Your task to perform on an android device: find snoozed emails in the gmail app Image 0: 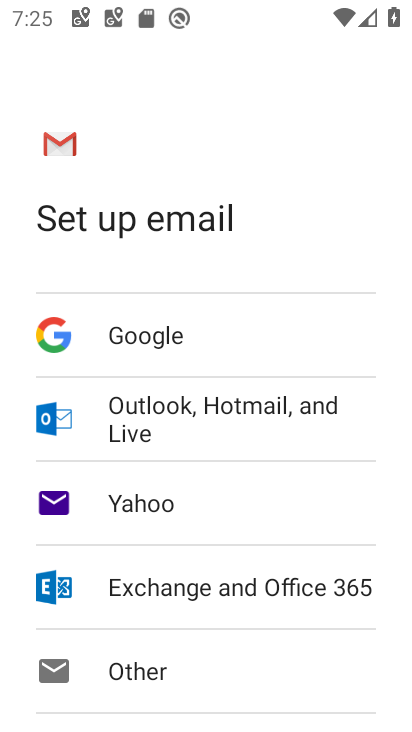
Step 0: press home button
Your task to perform on an android device: find snoozed emails in the gmail app Image 1: 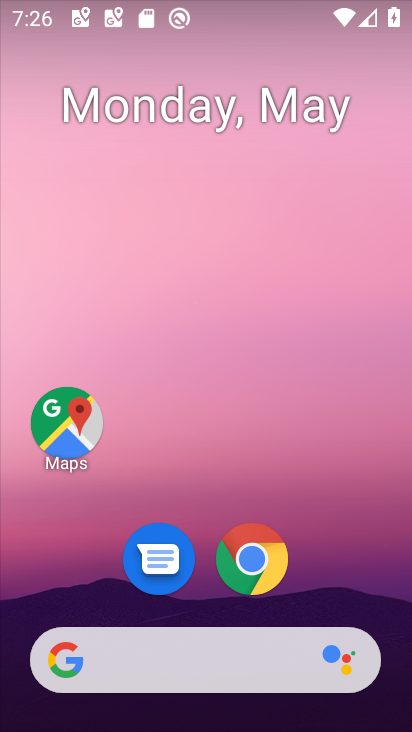
Step 1: drag from (381, 613) to (274, 82)
Your task to perform on an android device: find snoozed emails in the gmail app Image 2: 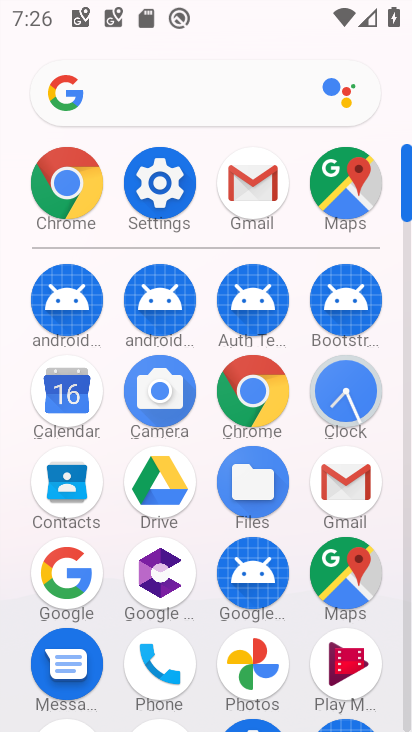
Step 2: click (329, 488)
Your task to perform on an android device: find snoozed emails in the gmail app Image 3: 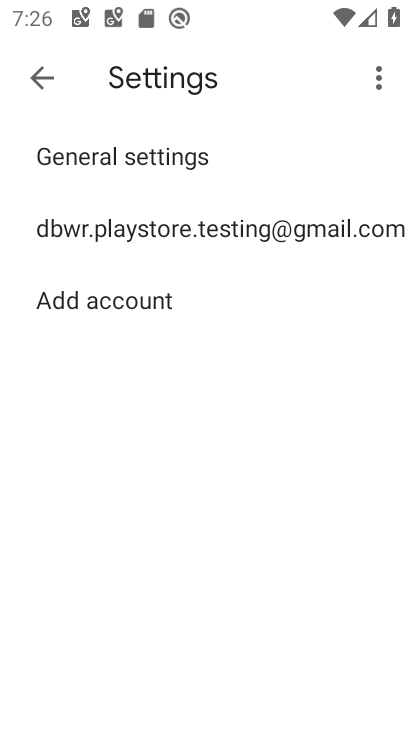
Step 3: press back button
Your task to perform on an android device: find snoozed emails in the gmail app Image 4: 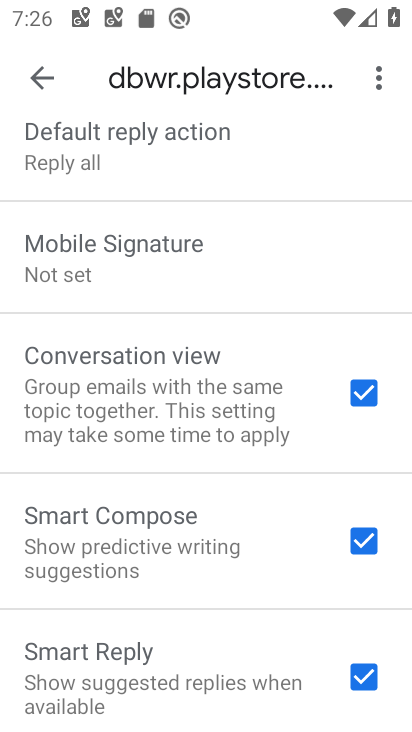
Step 4: press back button
Your task to perform on an android device: find snoozed emails in the gmail app Image 5: 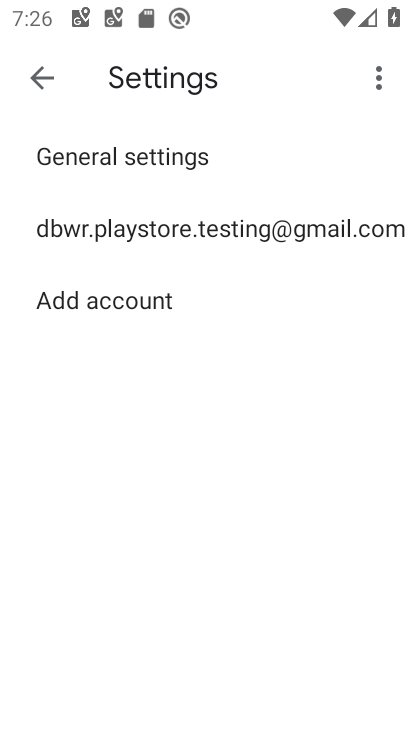
Step 5: press back button
Your task to perform on an android device: find snoozed emails in the gmail app Image 6: 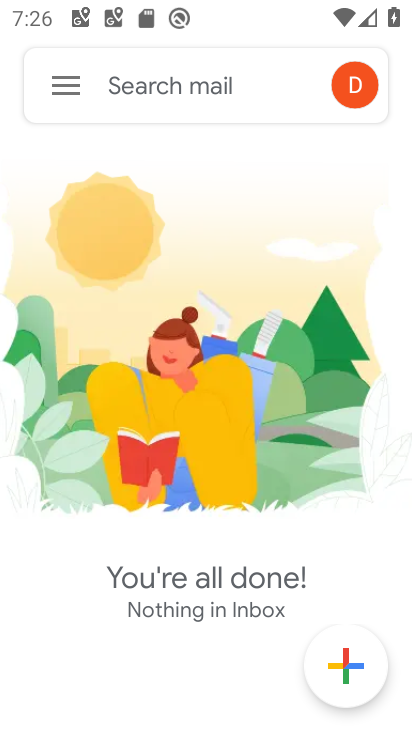
Step 6: click (61, 74)
Your task to perform on an android device: find snoozed emails in the gmail app Image 7: 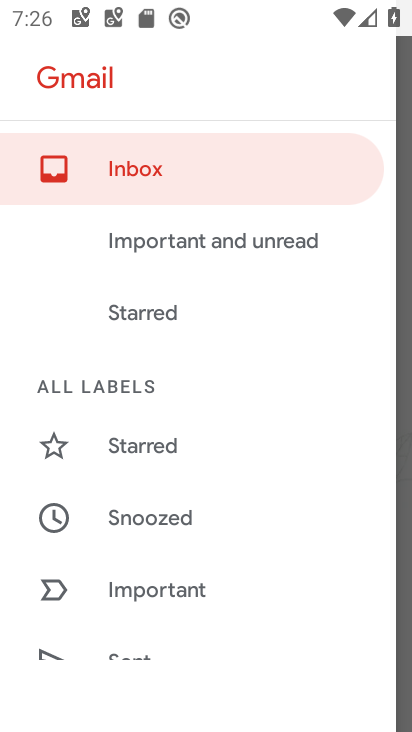
Step 7: click (178, 530)
Your task to perform on an android device: find snoozed emails in the gmail app Image 8: 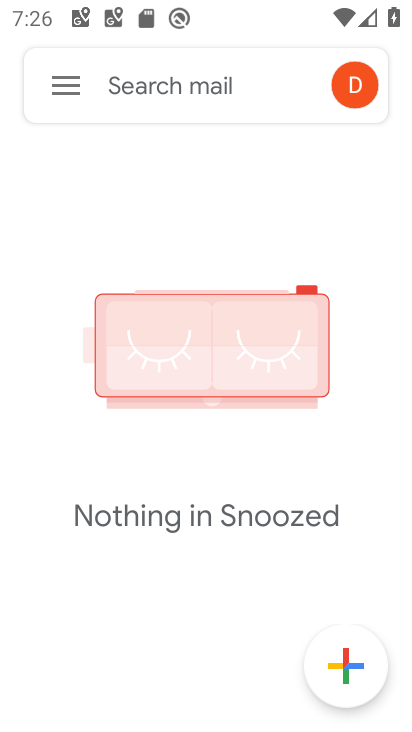
Step 8: task complete